Your task to perform on an android device: Set the phone to "Do not disturb". Image 0: 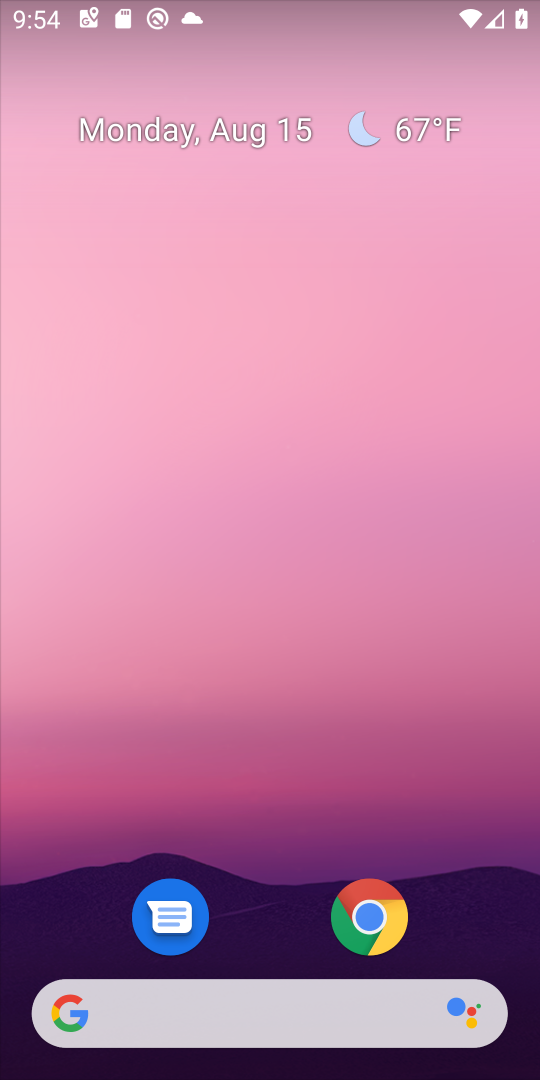
Step 0: drag from (277, 863) to (354, 0)
Your task to perform on an android device: Set the phone to "Do not disturb". Image 1: 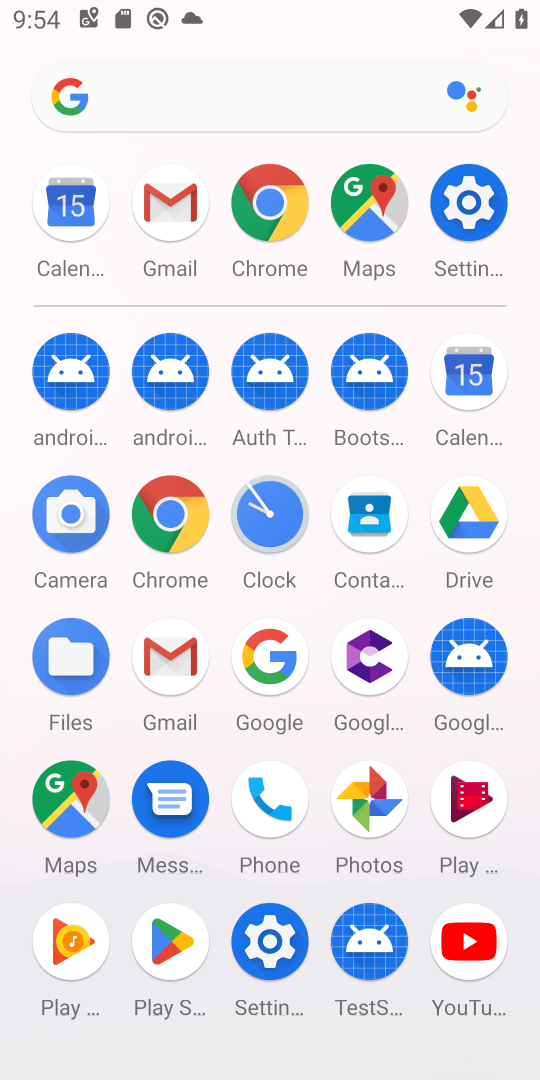
Step 1: click (480, 196)
Your task to perform on an android device: Set the phone to "Do not disturb". Image 2: 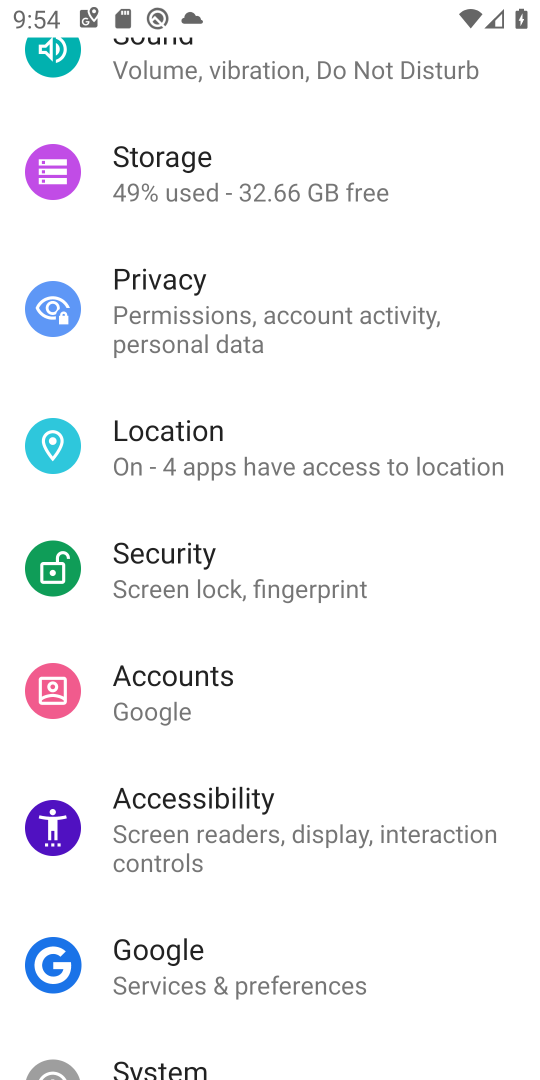
Step 2: drag from (315, 280) to (399, 648)
Your task to perform on an android device: Set the phone to "Do not disturb". Image 3: 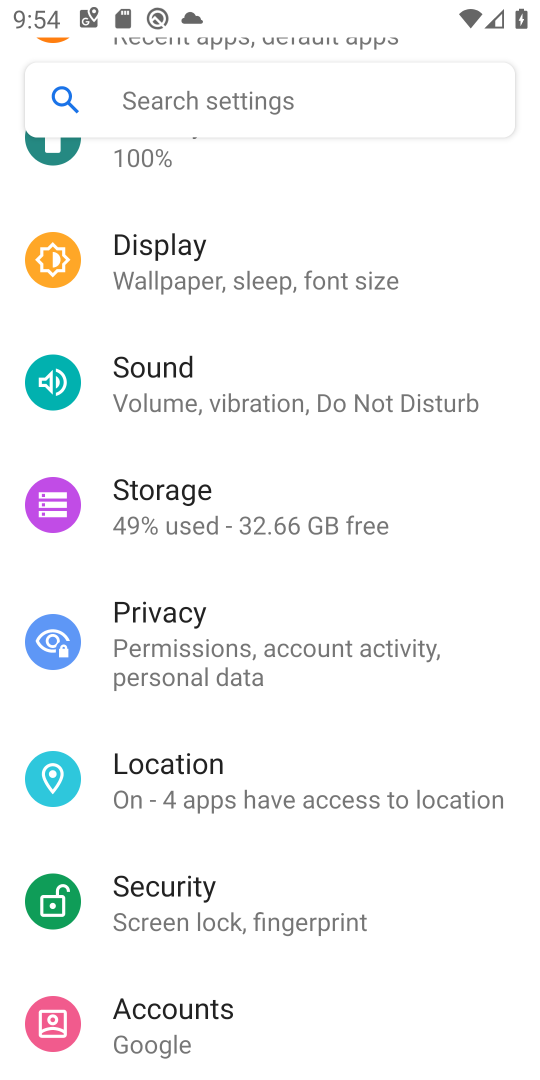
Step 3: click (269, 404)
Your task to perform on an android device: Set the phone to "Do not disturb". Image 4: 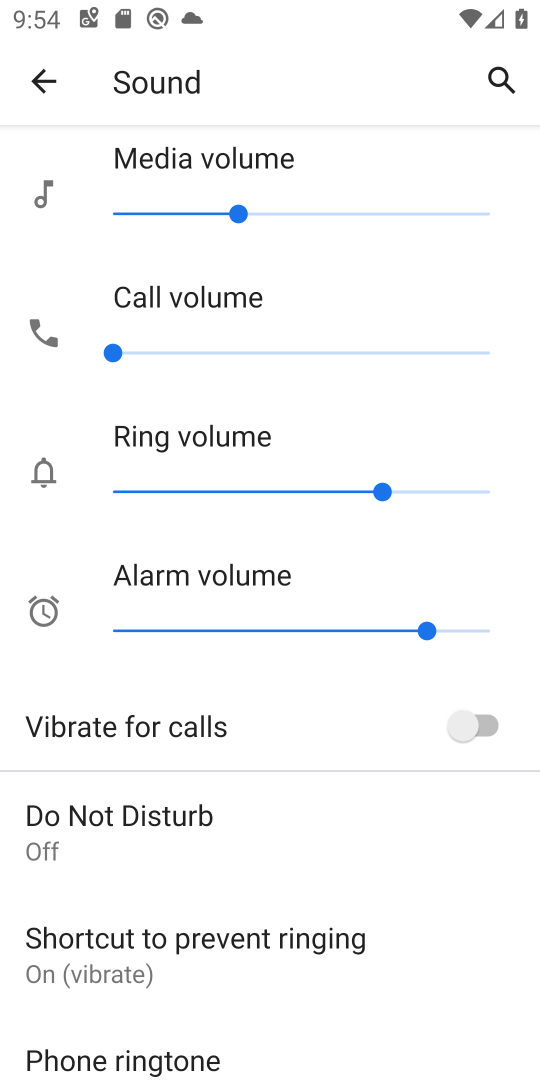
Step 4: click (173, 803)
Your task to perform on an android device: Set the phone to "Do not disturb". Image 5: 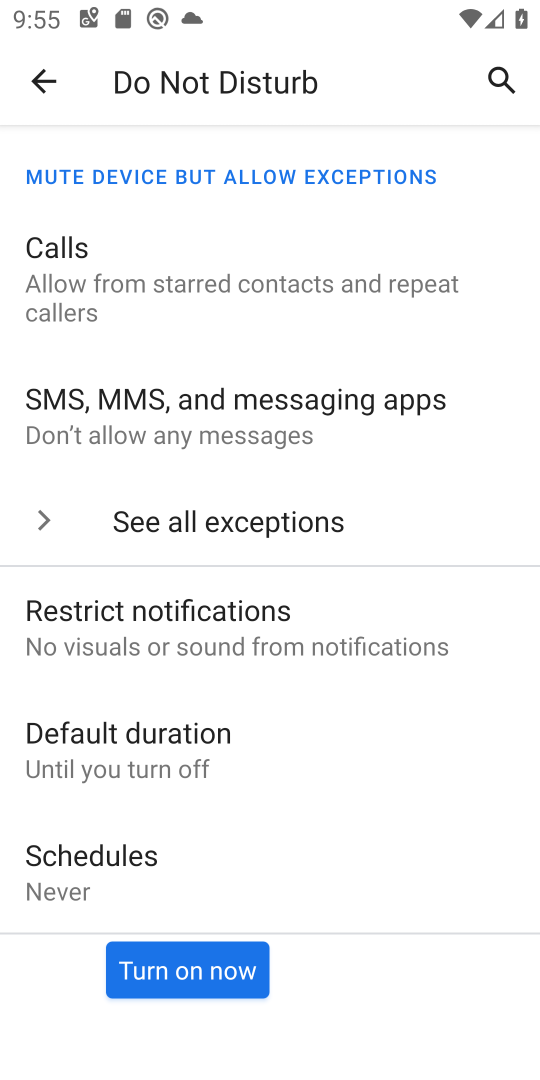
Step 5: click (228, 974)
Your task to perform on an android device: Set the phone to "Do not disturb". Image 6: 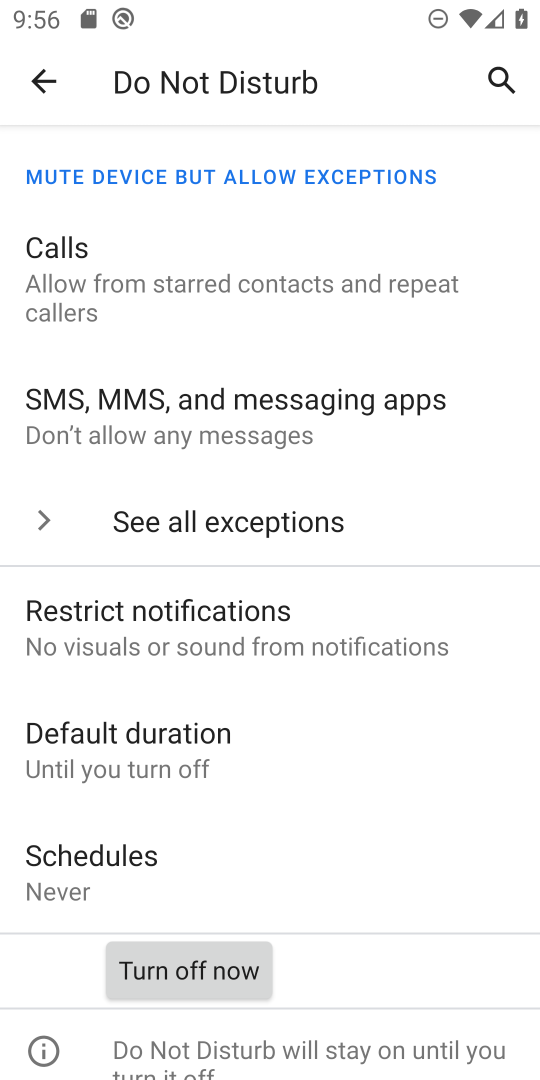
Step 6: task complete